Your task to perform on an android device: Search for the best rated Bluetooth earbuds on Ali express Image 0: 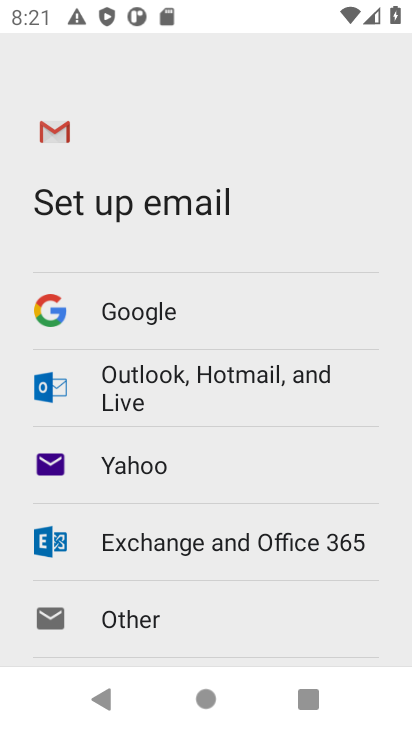
Step 0: press home button
Your task to perform on an android device: Search for the best rated Bluetooth earbuds on Ali express Image 1: 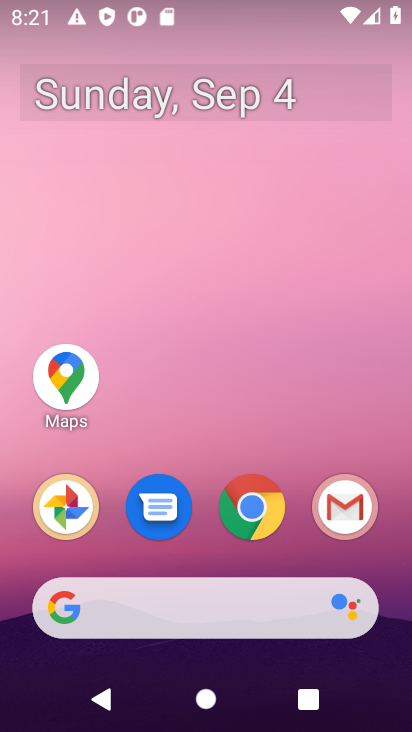
Step 1: click (282, 498)
Your task to perform on an android device: Search for the best rated Bluetooth earbuds on Ali express Image 2: 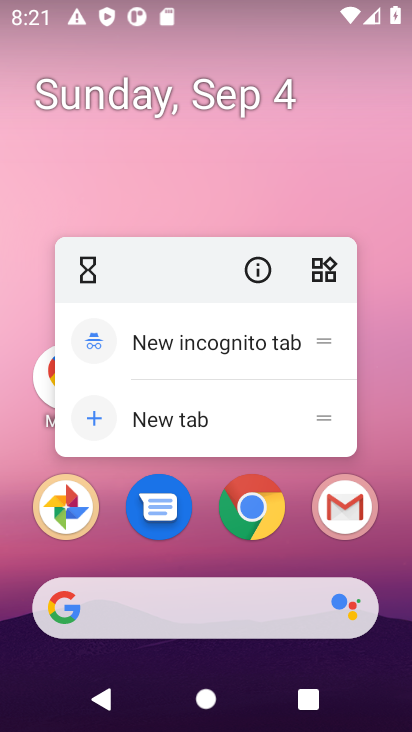
Step 2: click (264, 501)
Your task to perform on an android device: Search for the best rated Bluetooth earbuds on Ali express Image 3: 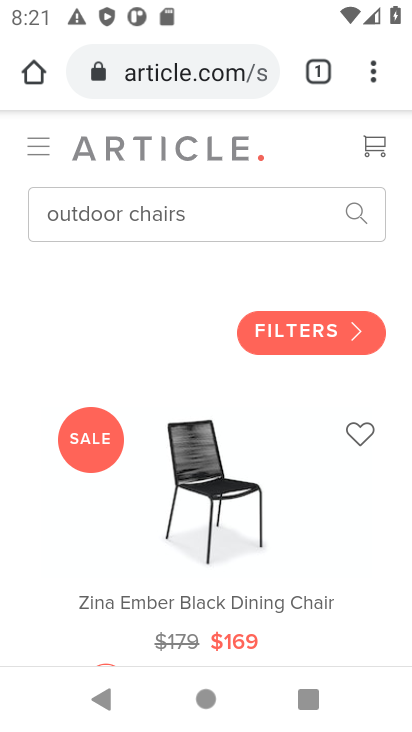
Step 3: click (169, 69)
Your task to perform on an android device: Search for the best rated Bluetooth earbuds on Ali express Image 4: 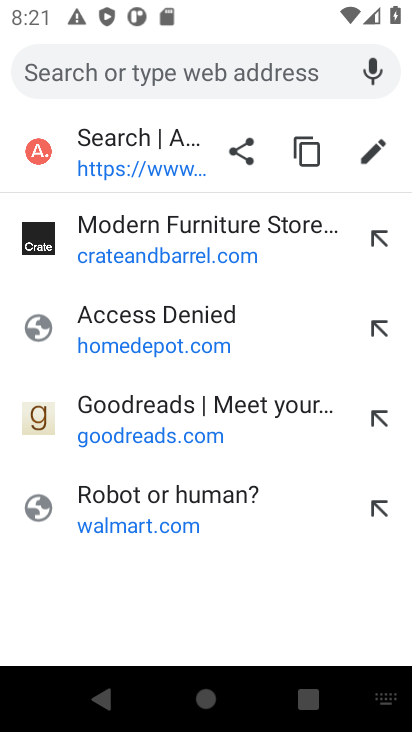
Step 4: type "ali express"
Your task to perform on an android device: Search for the best rated Bluetooth earbuds on Ali express Image 5: 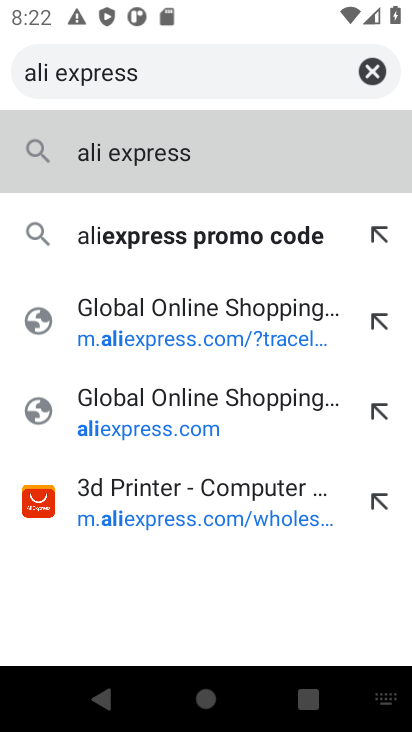
Step 5: click (151, 413)
Your task to perform on an android device: Search for the best rated Bluetooth earbuds on Ali express Image 6: 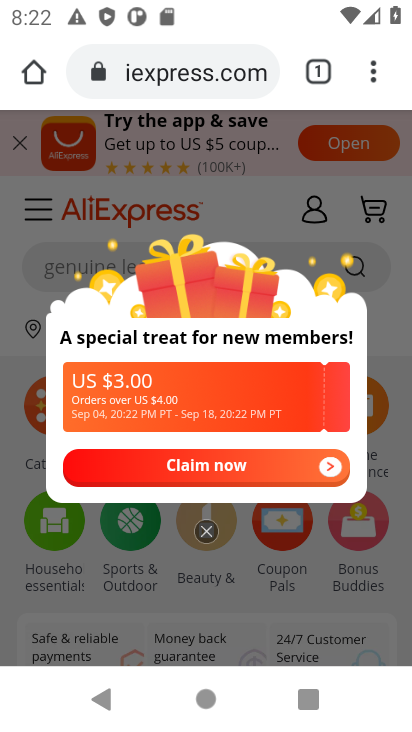
Step 6: click (62, 210)
Your task to perform on an android device: Search for the best rated Bluetooth earbuds on Ali express Image 7: 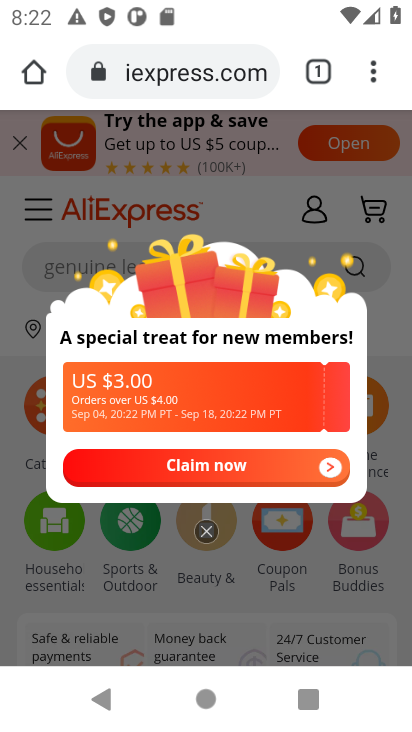
Step 7: click (35, 159)
Your task to perform on an android device: Search for the best rated Bluetooth earbuds on Ali express Image 8: 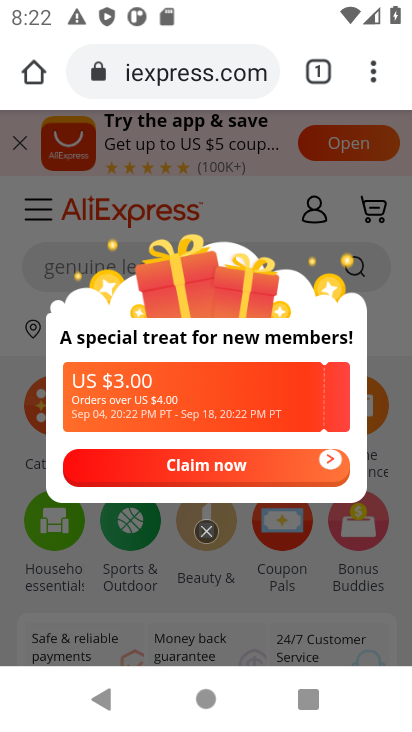
Step 8: click (359, 189)
Your task to perform on an android device: Search for the best rated Bluetooth earbuds on Ali express Image 9: 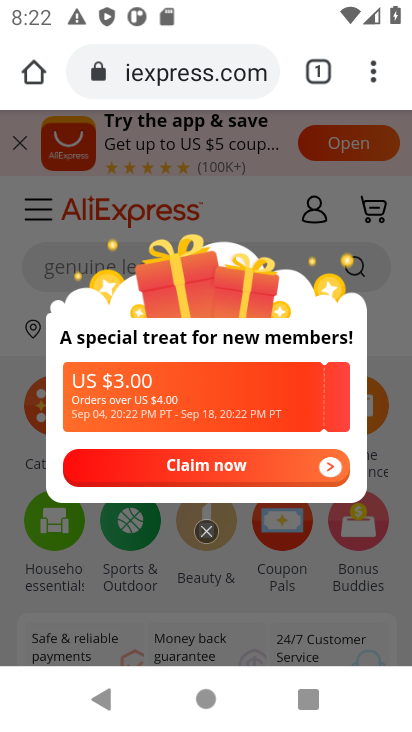
Step 9: click (206, 534)
Your task to perform on an android device: Search for the best rated Bluetooth earbuds on Ali express Image 10: 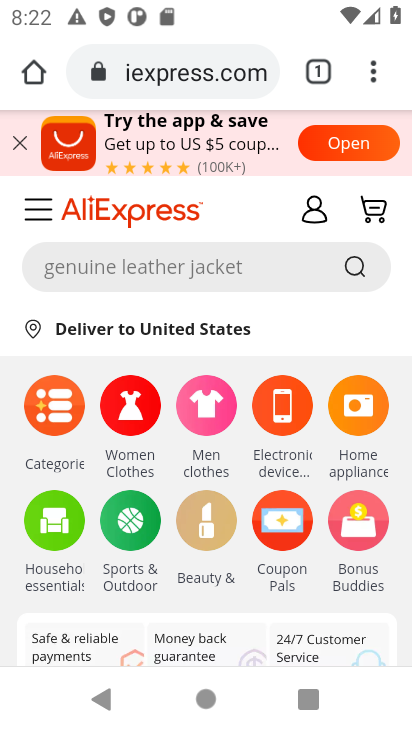
Step 10: click (198, 263)
Your task to perform on an android device: Search for the best rated Bluetooth earbuds on Ali express Image 11: 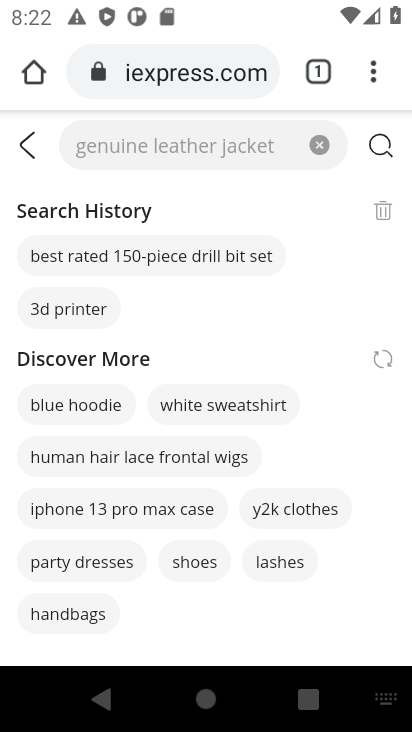
Step 11: type "best rated bluetooth earbuds"
Your task to perform on an android device: Search for the best rated Bluetooth earbuds on Ali express Image 12: 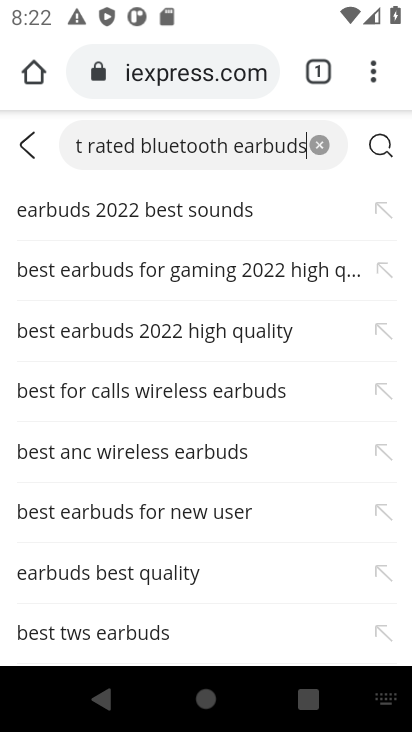
Step 12: press enter
Your task to perform on an android device: Search for the best rated Bluetooth earbuds on Ali express Image 13: 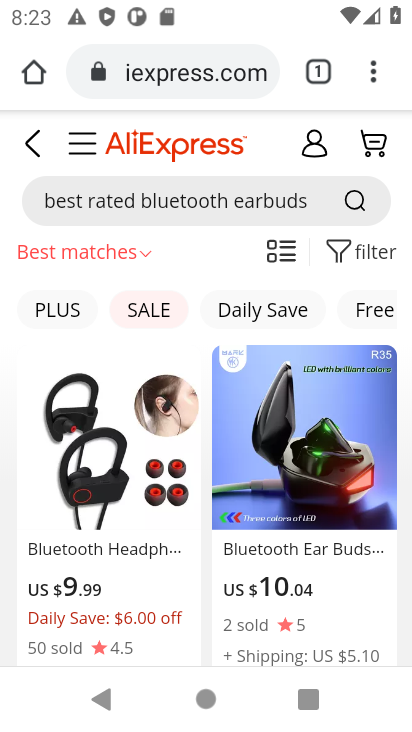
Step 13: task complete